Your task to perform on an android device: Play the latest video from the BBC Image 0: 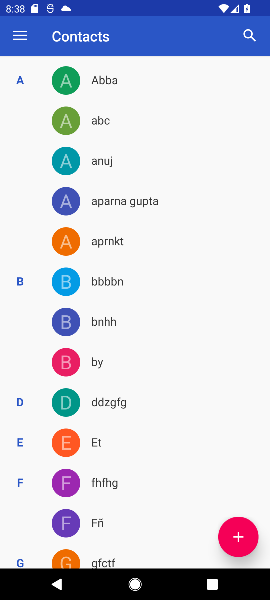
Step 0: press home button
Your task to perform on an android device: Play the latest video from the BBC Image 1: 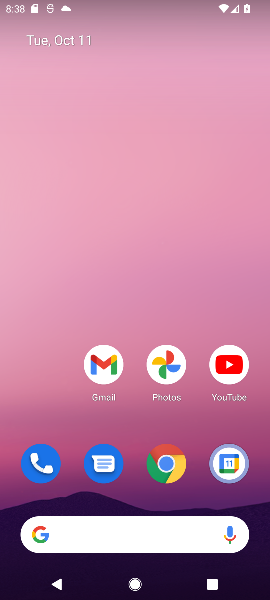
Step 1: drag from (101, 517) to (117, 187)
Your task to perform on an android device: Play the latest video from the BBC Image 2: 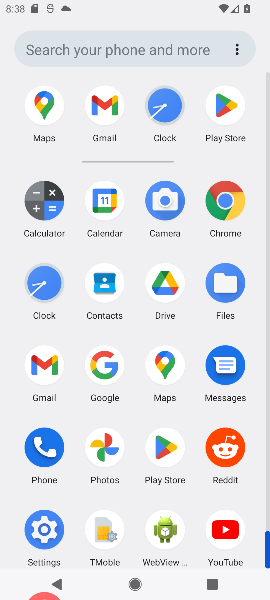
Step 2: click (106, 358)
Your task to perform on an android device: Play the latest video from the BBC Image 3: 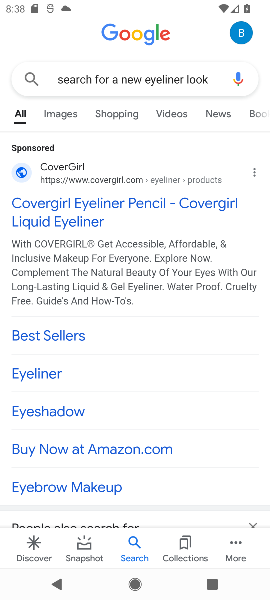
Step 3: click (177, 77)
Your task to perform on an android device: Play the latest video from the BBC Image 4: 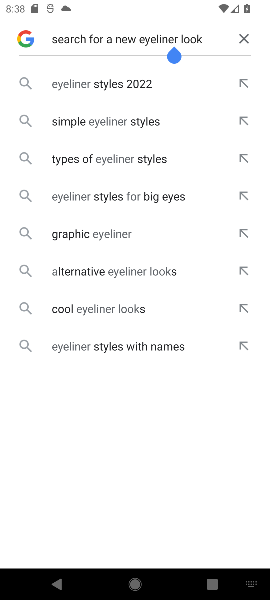
Step 4: click (243, 33)
Your task to perform on an android device: Play the latest video from the BBC Image 5: 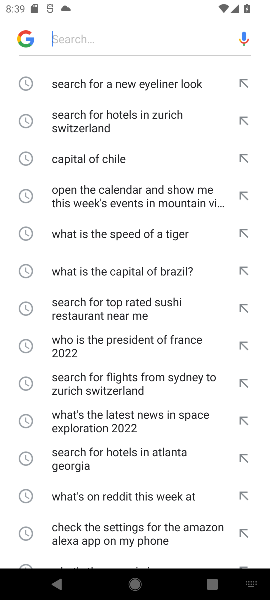
Step 5: click (112, 33)
Your task to perform on an android device: Play the latest video from the BBC Image 6: 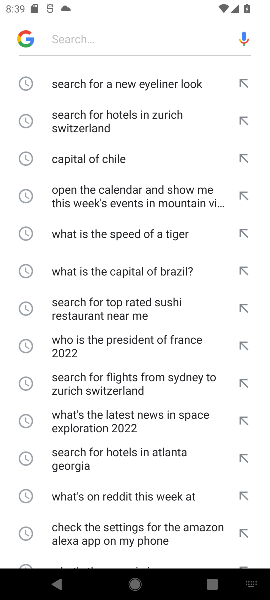
Step 6: type "Play the latest video from the BBC "
Your task to perform on an android device: Play the latest video from the BBC Image 7: 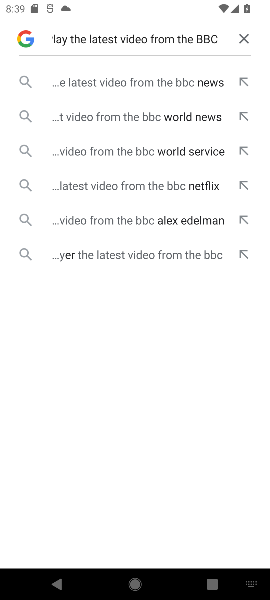
Step 7: click (112, 79)
Your task to perform on an android device: Play the latest video from the BBC Image 8: 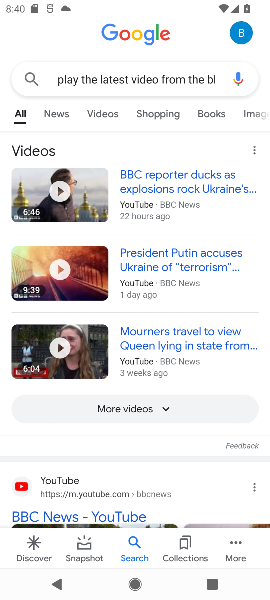
Step 8: task complete